Your task to perform on an android device: Do I have any events tomorrow? Image 0: 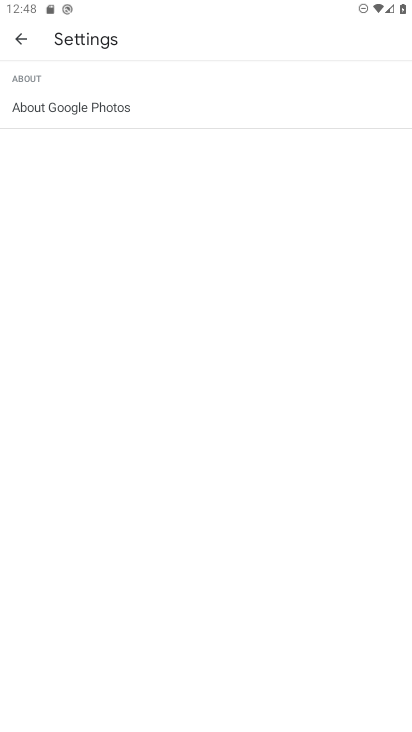
Step 0: press home button
Your task to perform on an android device: Do I have any events tomorrow? Image 1: 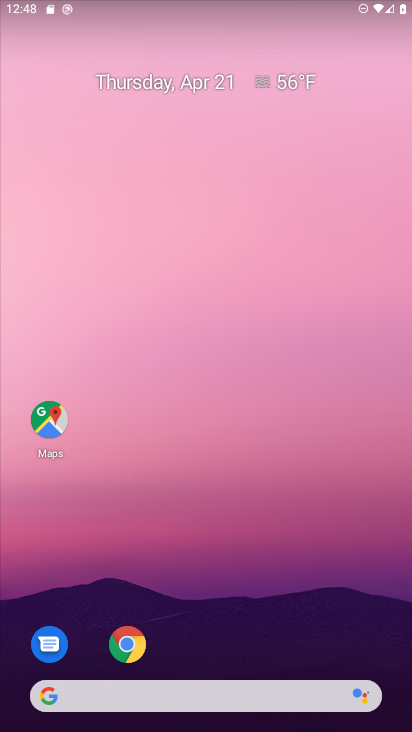
Step 1: drag from (187, 549) to (210, 140)
Your task to perform on an android device: Do I have any events tomorrow? Image 2: 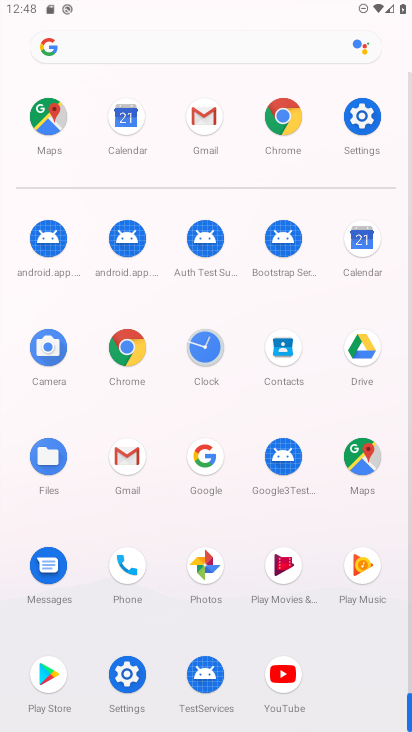
Step 2: click (368, 251)
Your task to perform on an android device: Do I have any events tomorrow? Image 3: 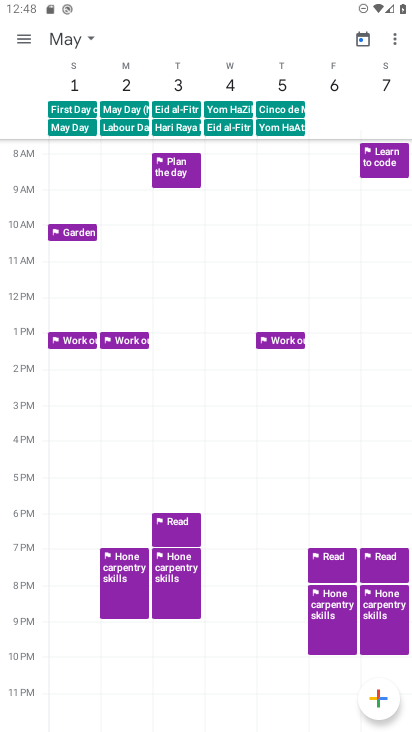
Step 3: click (80, 40)
Your task to perform on an android device: Do I have any events tomorrow? Image 4: 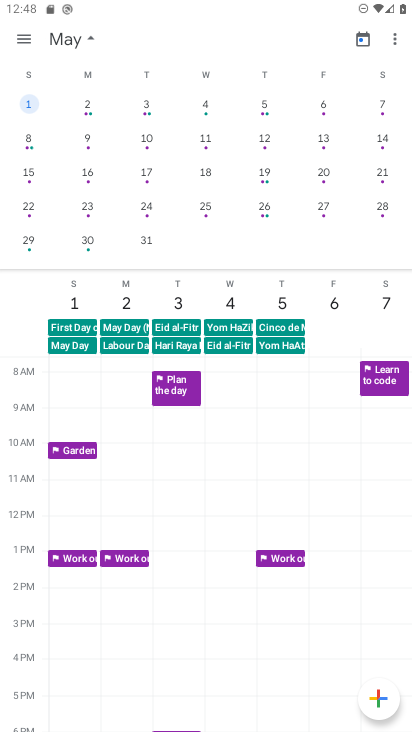
Step 4: drag from (66, 159) to (403, 124)
Your task to perform on an android device: Do I have any events tomorrow? Image 5: 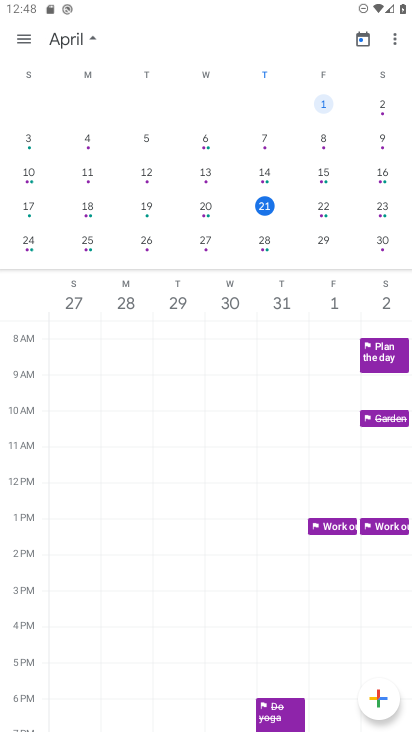
Step 5: click (316, 207)
Your task to perform on an android device: Do I have any events tomorrow? Image 6: 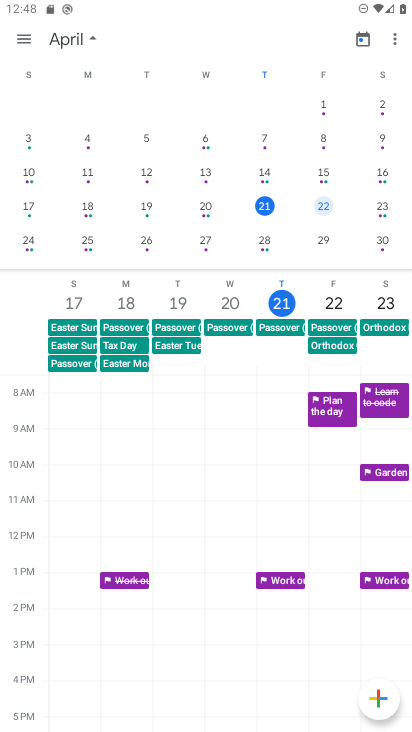
Step 6: task complete